Your task to perform on an android device: search for starred emails in the gmail app Image 0: 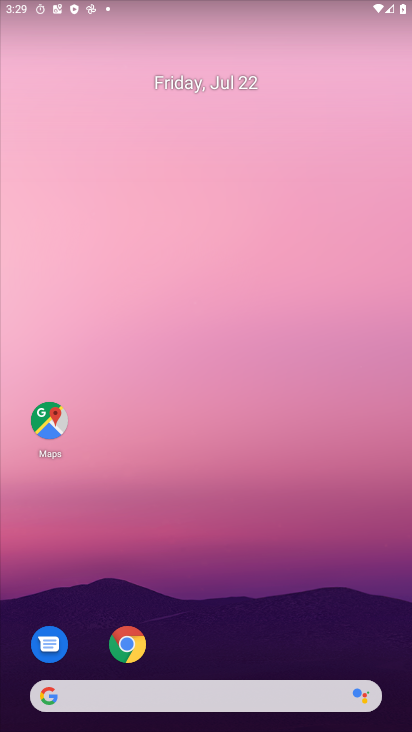
Step 0: drag from (270, 684) to (123, 62)
Your task to perform on an android device: search for starred emails in the gmail app Image 1: 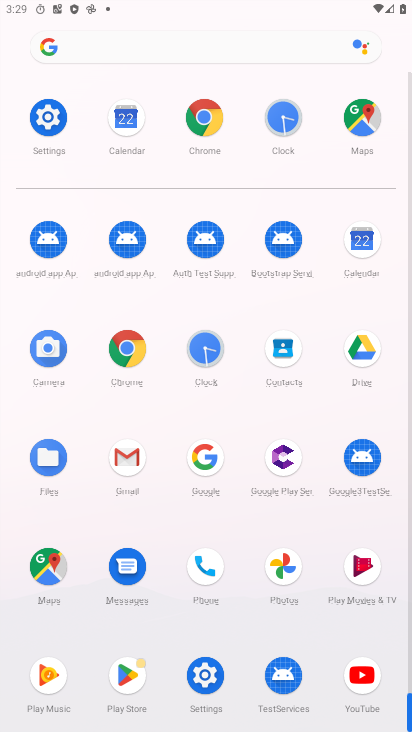
Step 1: click (140, 465)
Your task to perform on an android device: search for starred emails in the gmail app Image 2: 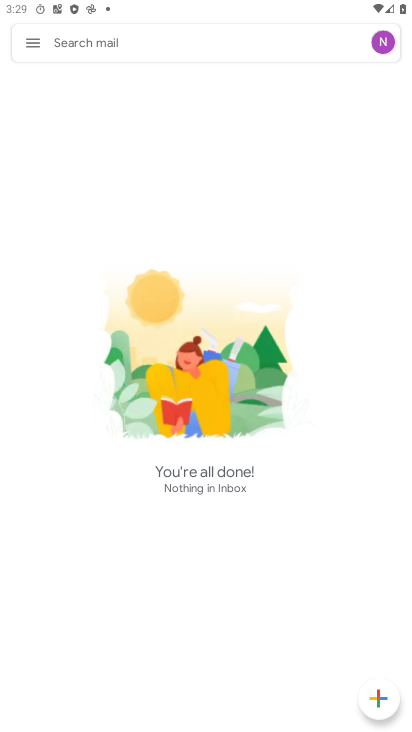
Step 2: click (32, 35)
Your task to perform on an android device: search for starred emails in the gmail app Image 3: 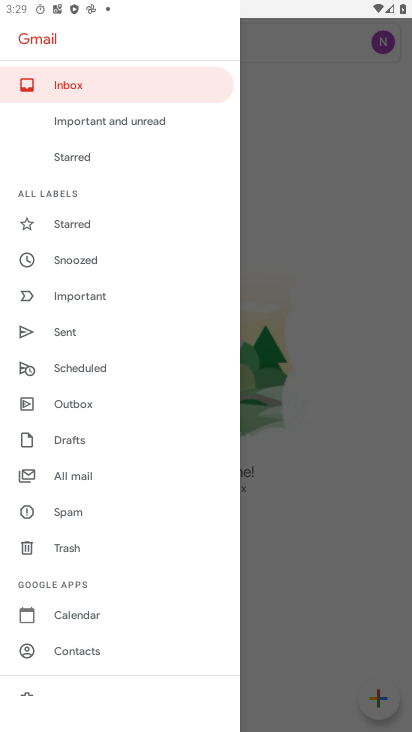
Step 3: click (86, 224)
Your task to perform on an android device: search for starred emails in the gmail app Image 4: 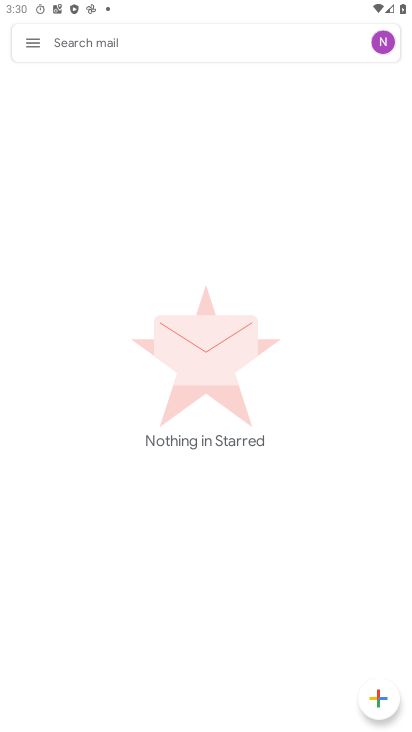
Step 4: task complete